Your task to perform on an android device: Open Chrome and go to the settings page Image 0: 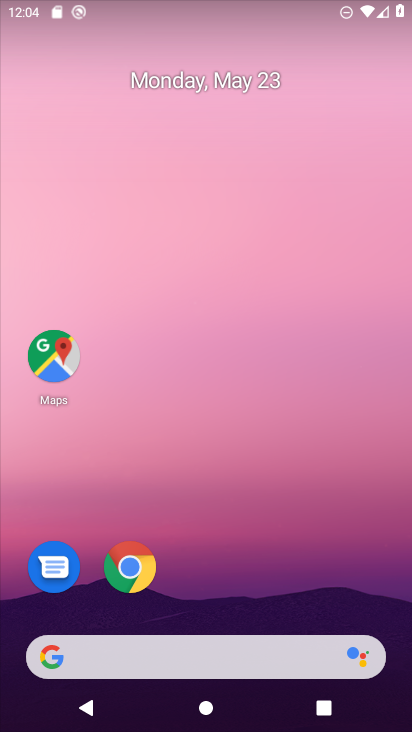
Step 0: click (141, 574)
Your task to perform on an android device: Open Chrome and go to the settings page Image 1: 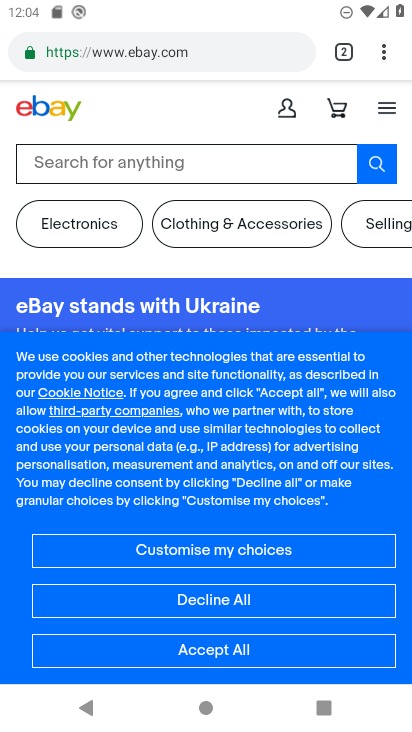
Step 1: click (390, 46)
Your task to perform on an android device: Open Chrome and go to the settings page Image 2: 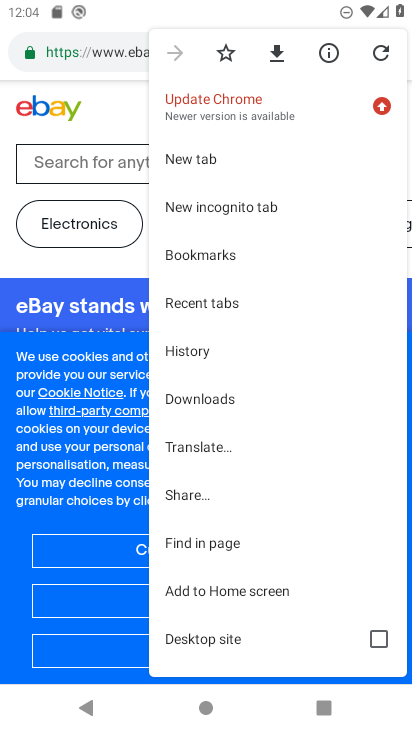
Step 2: drag from (190, 587) to (319, 225)
Your task to perform on an android device: Open Chrome and go to the settings page Image 3: 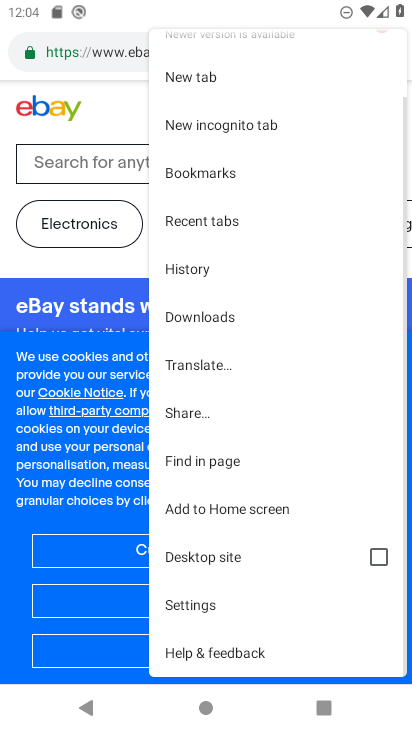
Step 3: click (190, 604)
Your task to perform on an android device: Open Chrome and go to the settings page Image 4: 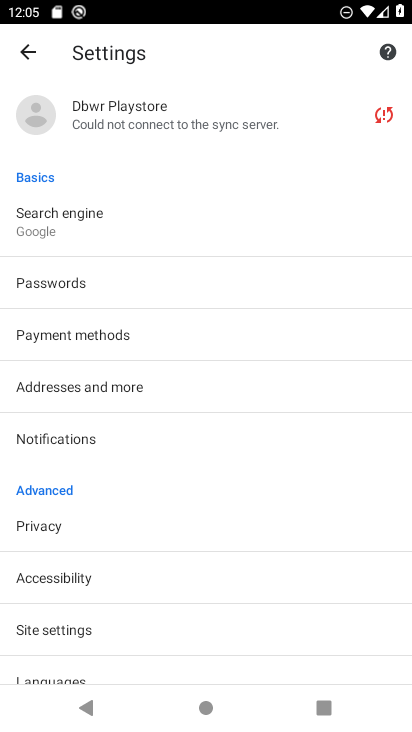
Step 4: task complete